Your task to perform on an android device: Go to Google Image 0: 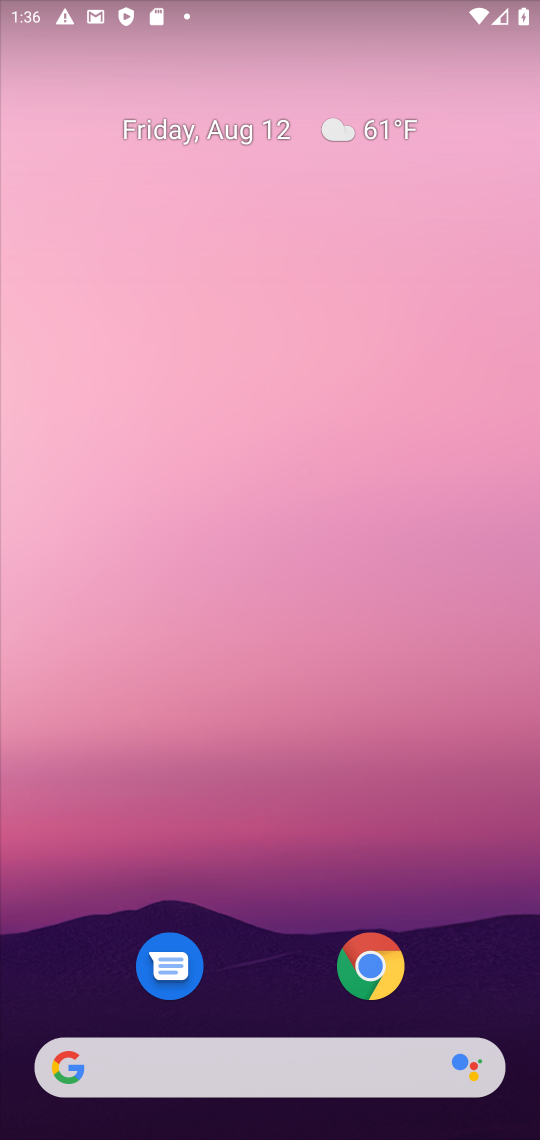
Step 0: drag from (297, 709) to (167, 41)
Your task to perform on an android device: Go to Google Image 1: 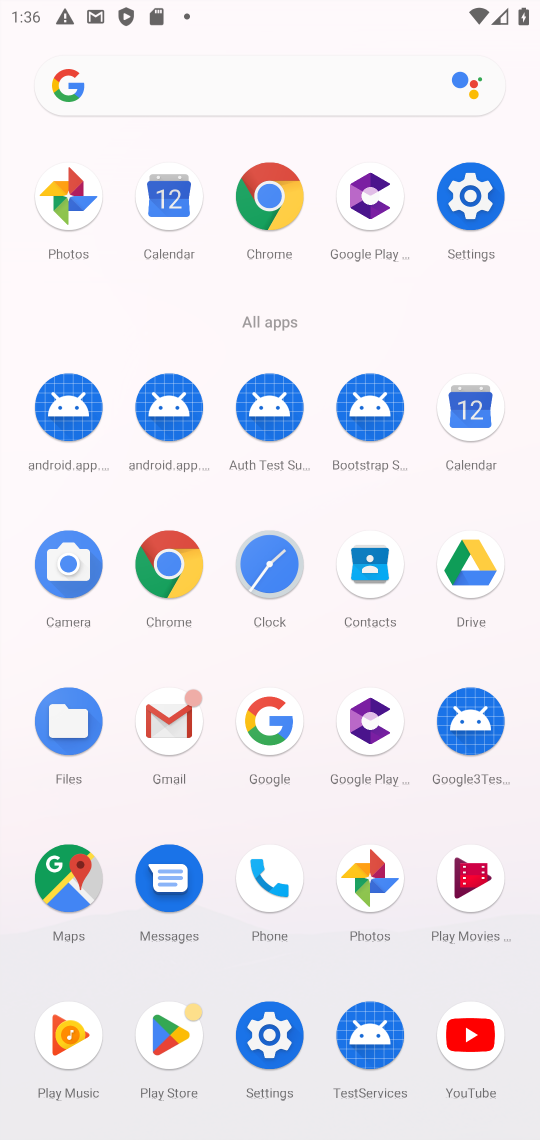
Step 1: click (280, 729)
Your task to perform on an android device: Go to Google Image 2: 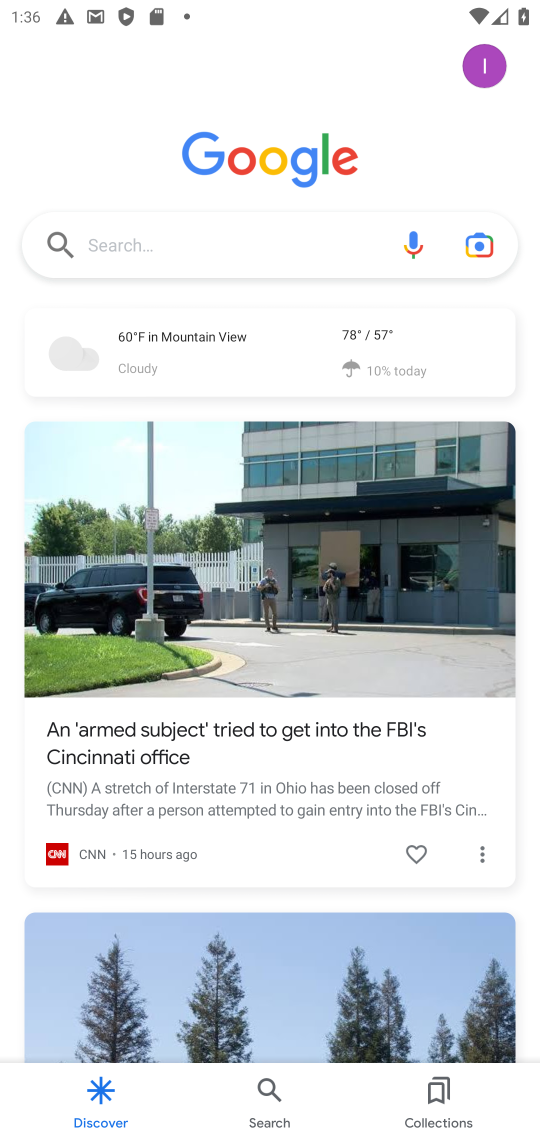
Step 2: task complete